Your task to perform on an android device: allow notifications from all sites in the chrome app Image 0: 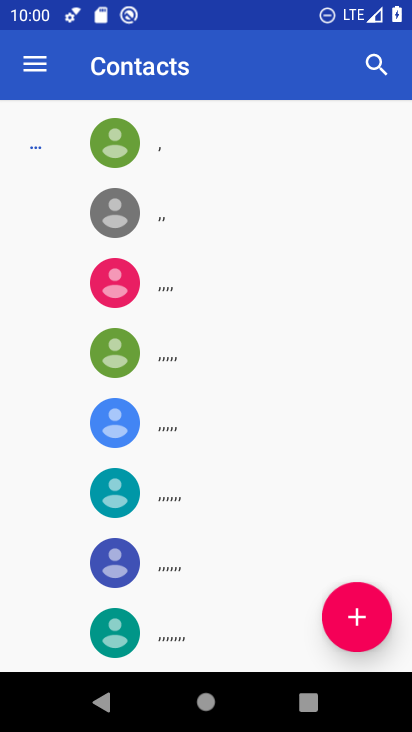
Step 0: press home button
Your task to perform on an android device: allow notifications from all sites in the chrome app Image 1: 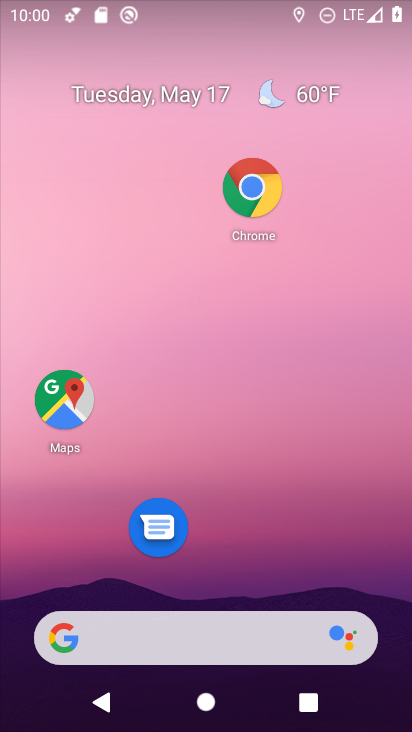
Step 1: click (251, 208)
Your task to perform on an android device: allow notifications from all sites in the chrome app Image 2: 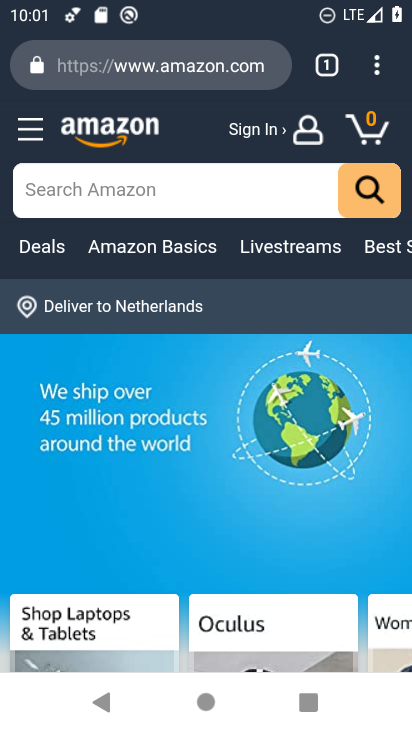
Step 2: click (368, 88)
Your task to perform on an android device: allow notifications from all sites in the chrome app Image 3: 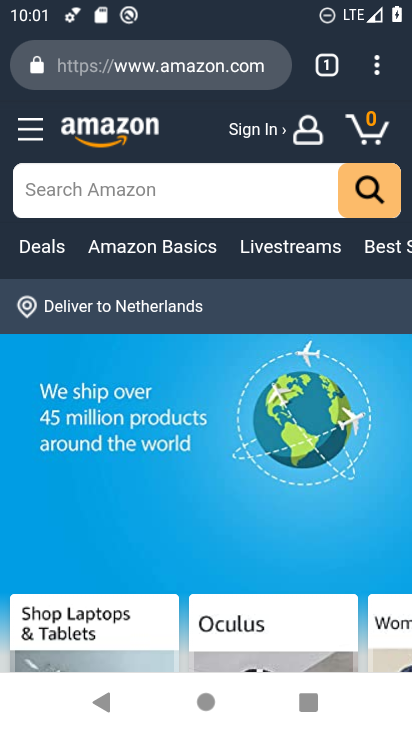
Step 3: click (382, 71)
Your task to perform on an android device: allow notifications from all sites in the chrome app Image 4: 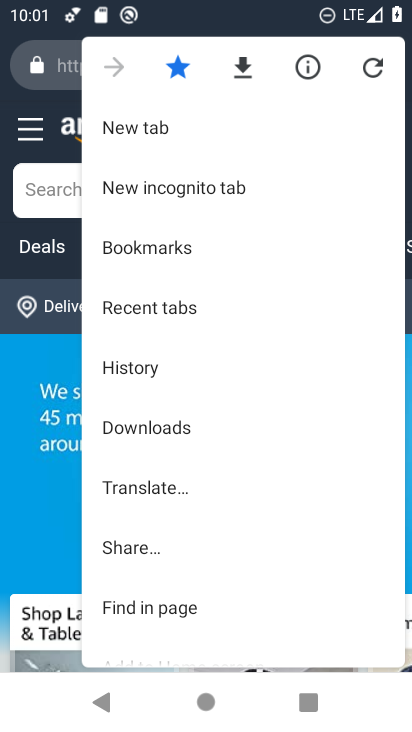
Step 4: drag from (174, 599) to (241, 226)
Your task to perform on an android device: allow notifications from all sites in the chrome app Image 5: 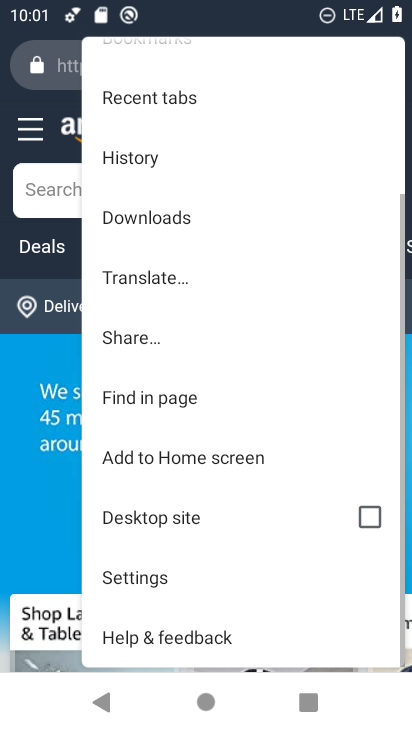
Step 5: click (181, 577)
Your task to perform on an android device: allow notifications from all sites in the chrome app Image 6: 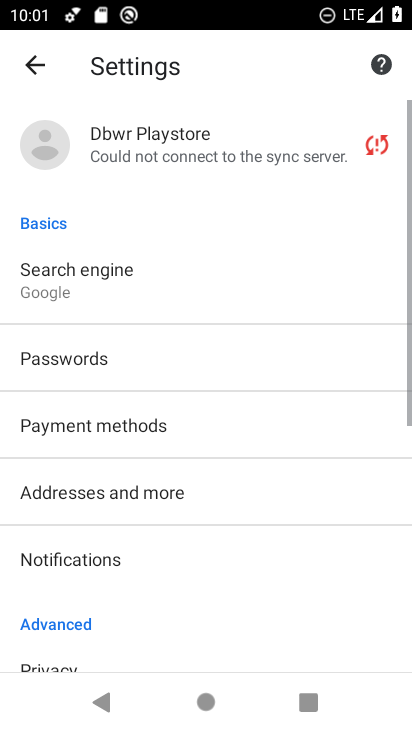
Step 6: drag from (181, 577) to (216, 370)
Your task to perform on an android device: allow notifications from all sites in the chrome app Image 7: 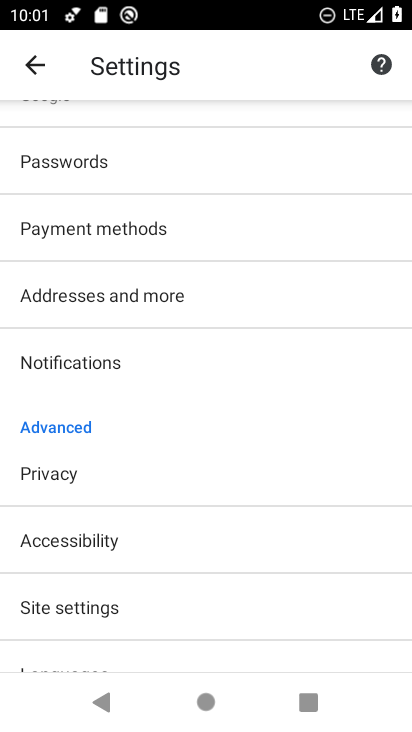
Step 7: drag from (123, 528) to (135, 642)
Your task to perform on an android device: allow notifications from all sites in the chrome app Image 8: 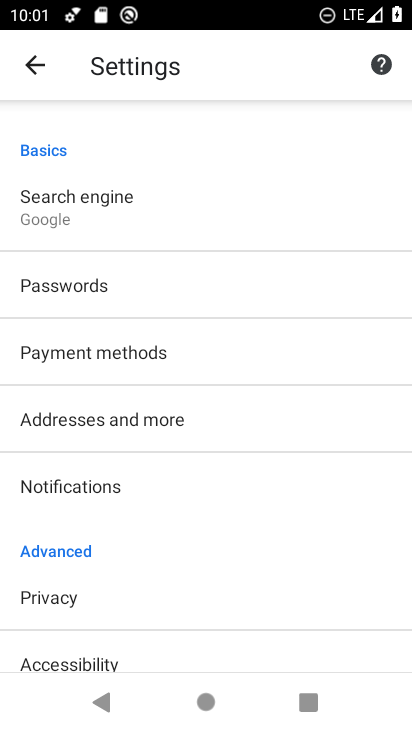
Step 8: click (228, 485)
Your task to perform on an android device: allow notifications from all sites in the chrome app Image 9: 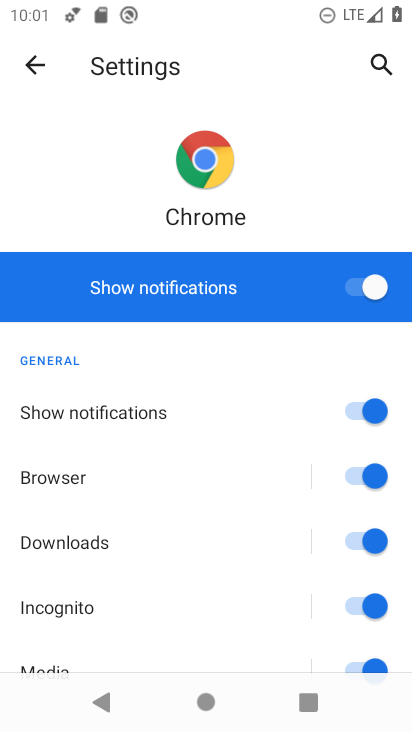
Step 9: task complete